Your task to perform on an android device: star an email in the gmail app Image 0: 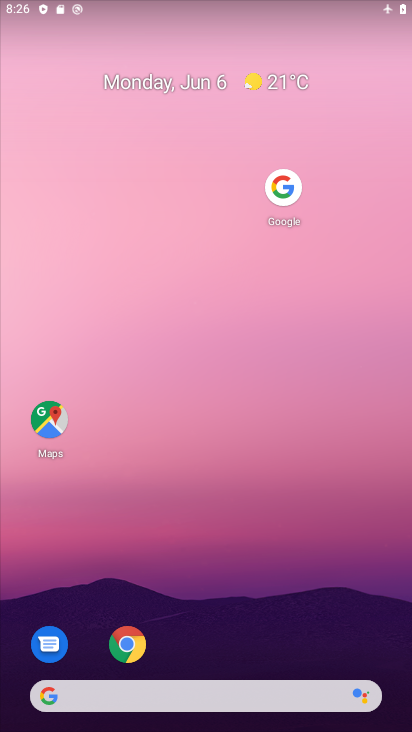
Step 0: drag from (210, 665) to (230, 190)
Your task to perform on an android device: star an email in the gmail app Image 1: 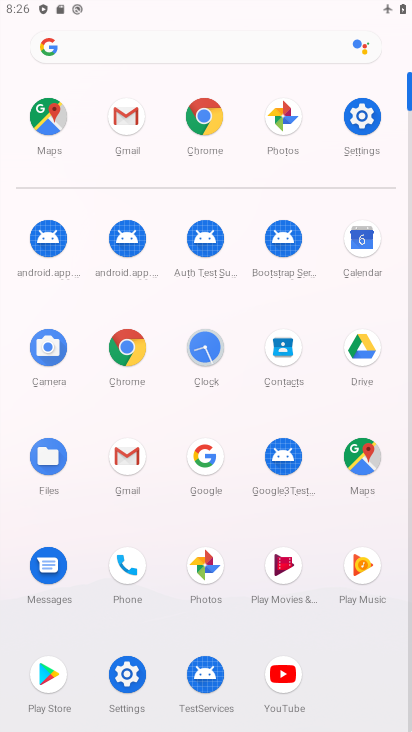
Step 1: click (230, 190)
Your task to perform on an android device: star an email in the gmail app Image 2: 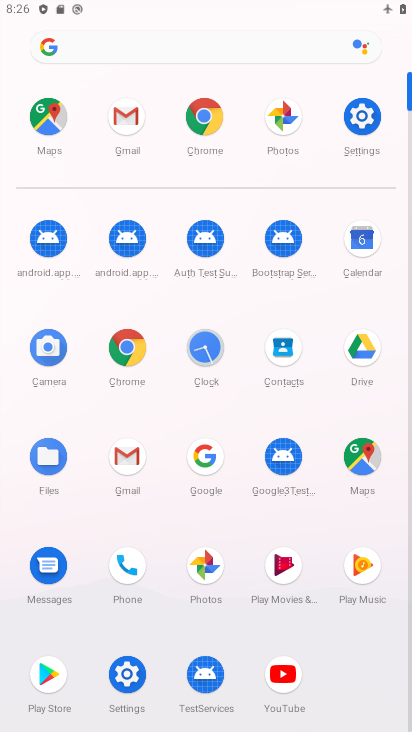
Step 2: click (108, 459)
Your task to perform on an android device: star an email in the gmail app Image 3: 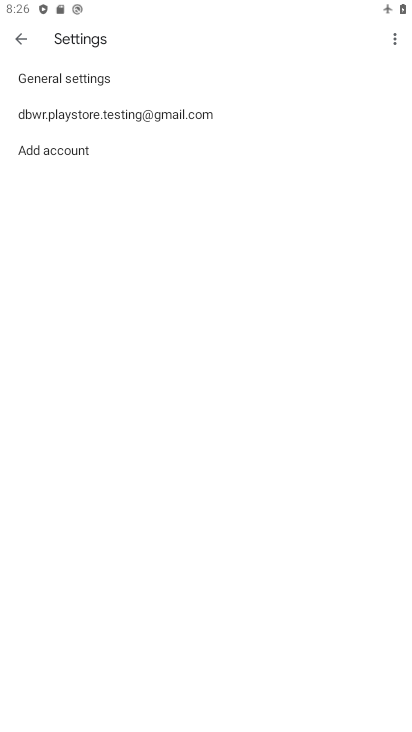
Step 3: click (13, 32)
Your task to perform on an android device: star an email in the gmail app Image 4: 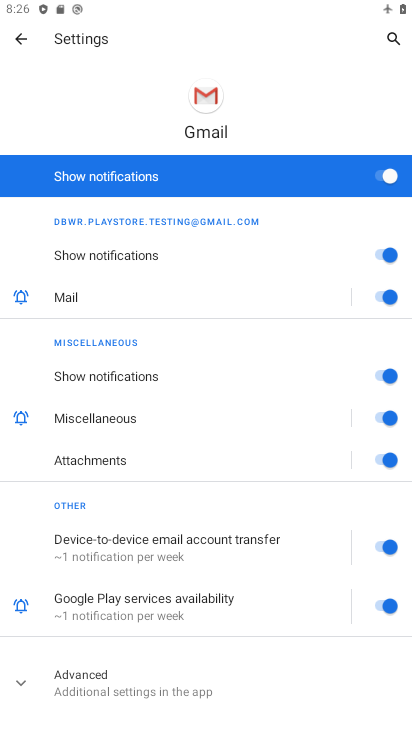
Step 4: click (13, 32)
Your task to perform on an android device: star an email in the gmail app Image 5: 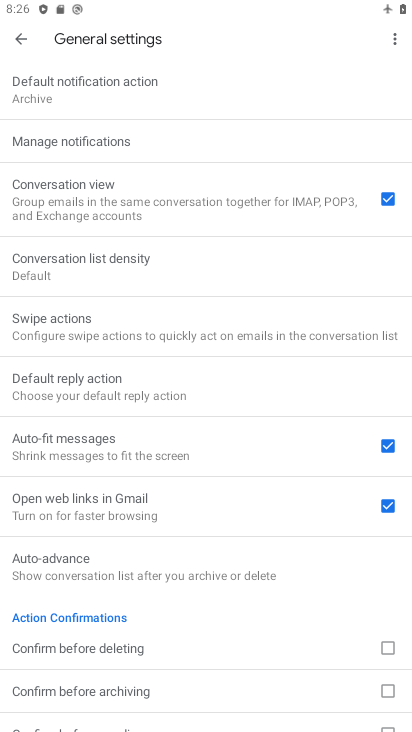
Step 5: click (13, 32)
Your task to perform on an android device: star an email in the gmail app Image 6: 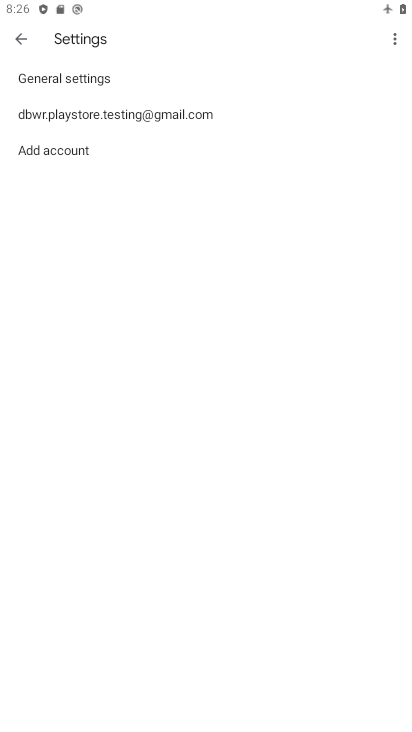
Step 6: click (13, 32)
Your task to perform on an android device: star an email in the gmail app Image 7: 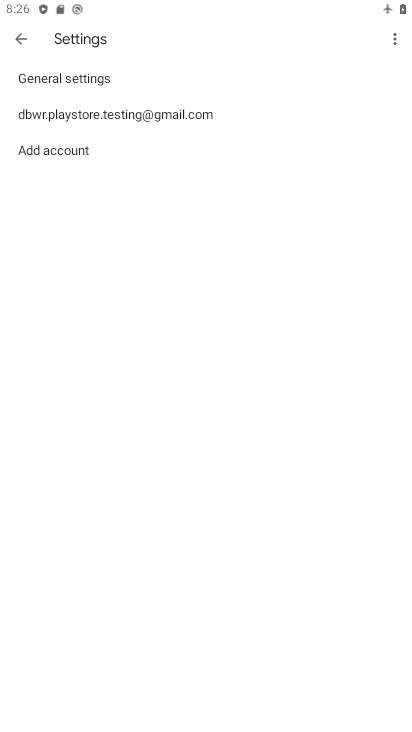
Step 7: click (13, 32)
Your task to perform on an android device: star an email in the gmail app Image 8: 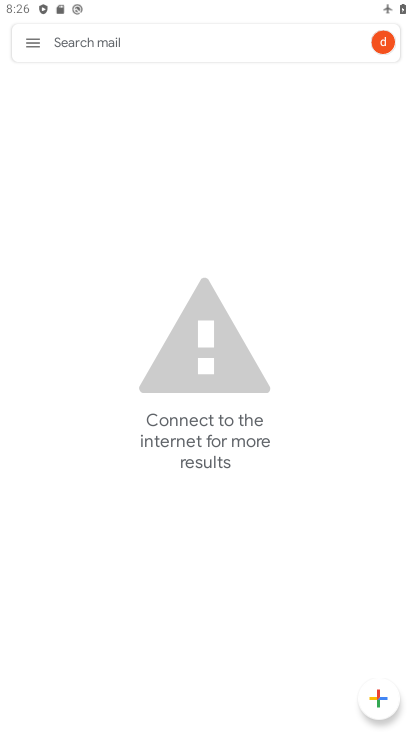
Step 8: task complete